Your task to perform on an android device: clear all cookies in the chrome app Image 0: 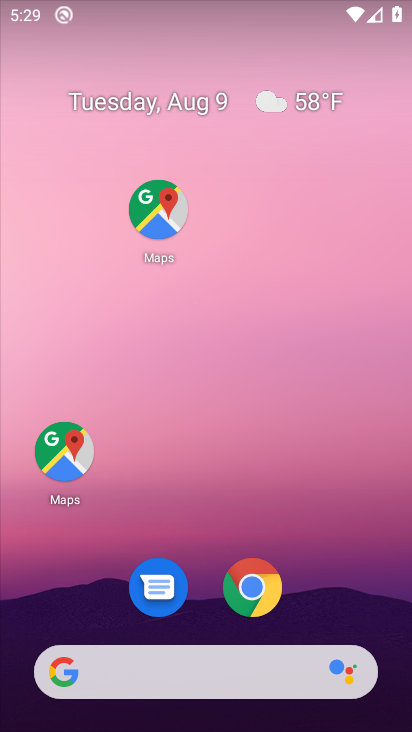
Step 0: click (174, 246)
Your task to perform on an android device: clear all cookies in the chrome app Image 1: 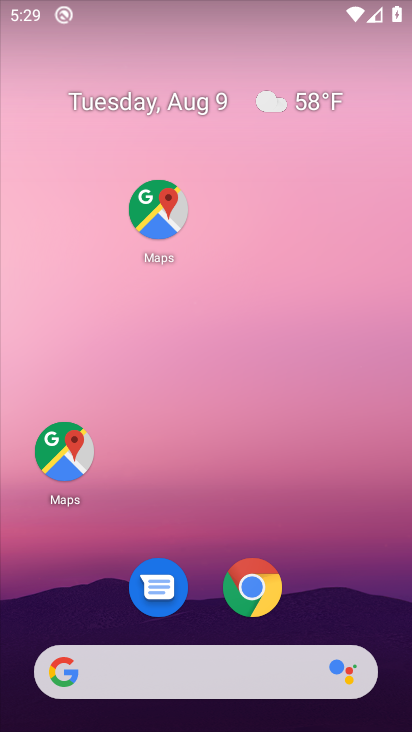
Step 1: click (216, 494)
Your task to perform on an android device: clear all cookies in the chrome app Image 2: 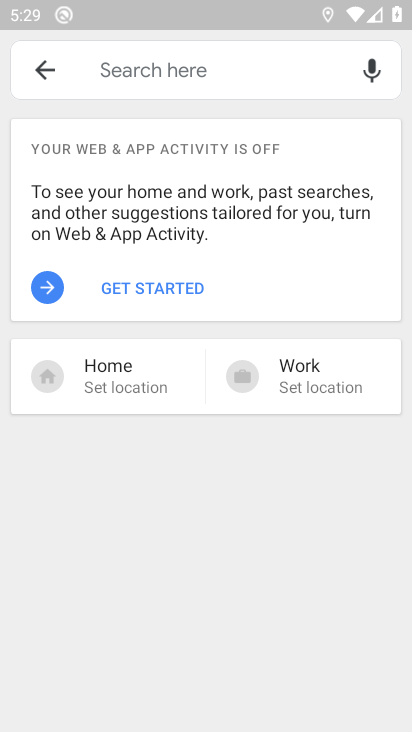
Step 2: click (35, 68)
Your task to perform on an android device: clear all cookies in the chrome app Image 3: 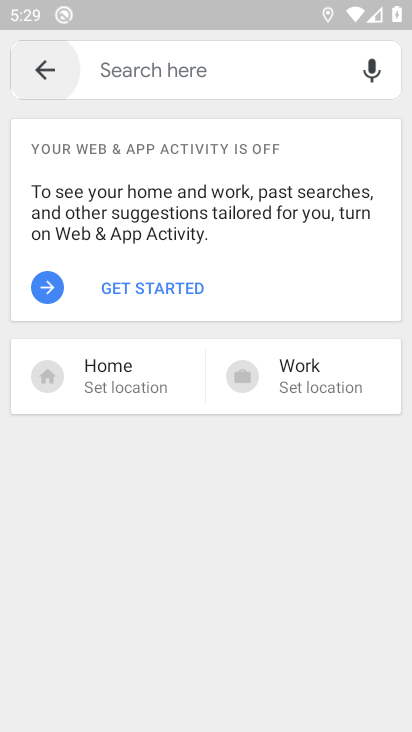
Step 3: click (34, 68)
Your task to perform on an android device: clear all cookies in the chrome app Image 4: 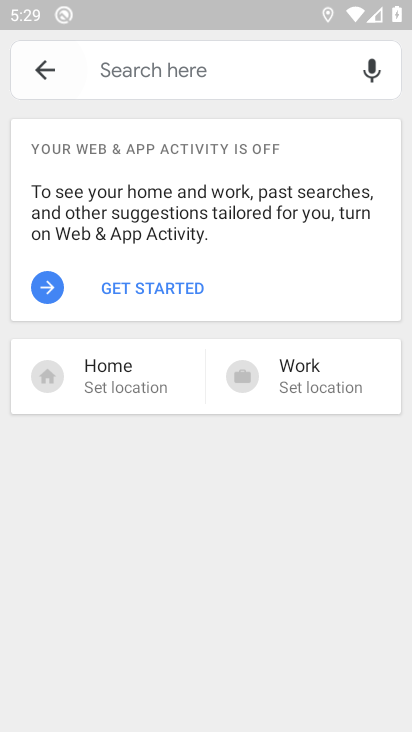
Step 4: click (34, 68)
Your task to perform on an android device: clear all cookies in the chrome app Image 5: 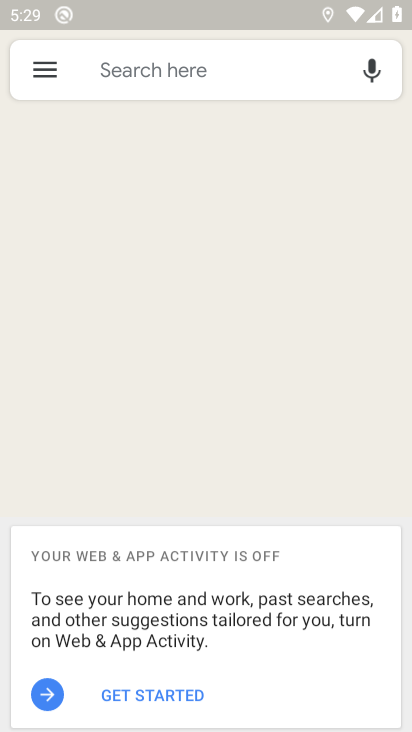
Step 5: click (34, 70)
Your task to perform on an android device: clear all cookies in the chrome app Image 6: 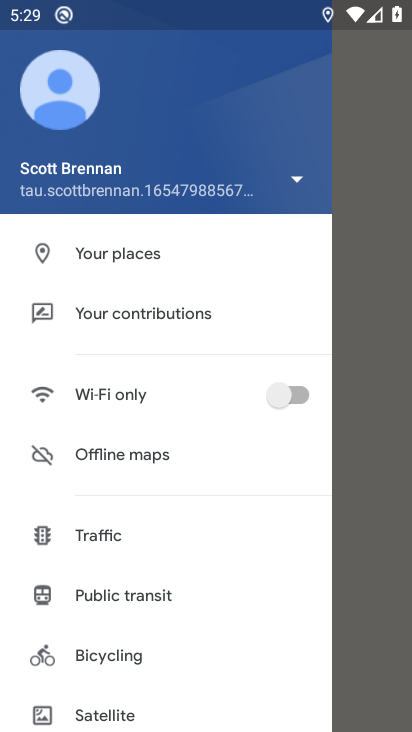
Step 6: click (388, 336)
Your task to perform on an android device: clear all cookies in the chrome app Image 7: 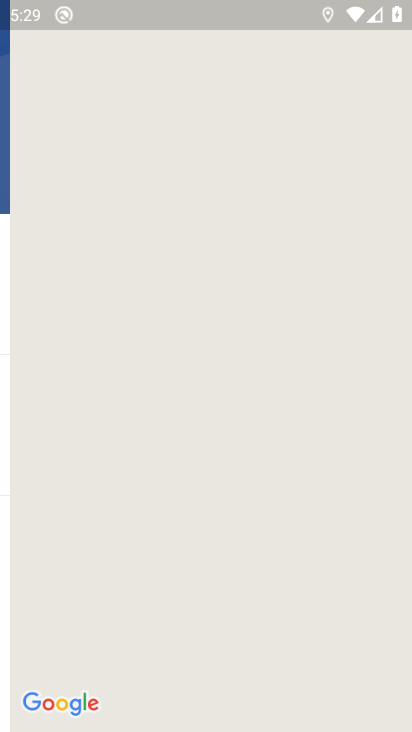
Step 7: press back button
Your task to perform on an android device: clear all cookies in the chrome app Image 8: 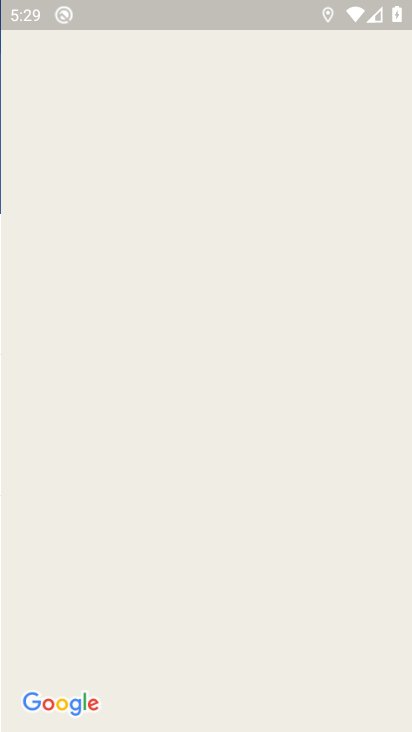
Step 8: press home button
Your task to perform on an android device: clear all cookies in the chrome app Image 9: 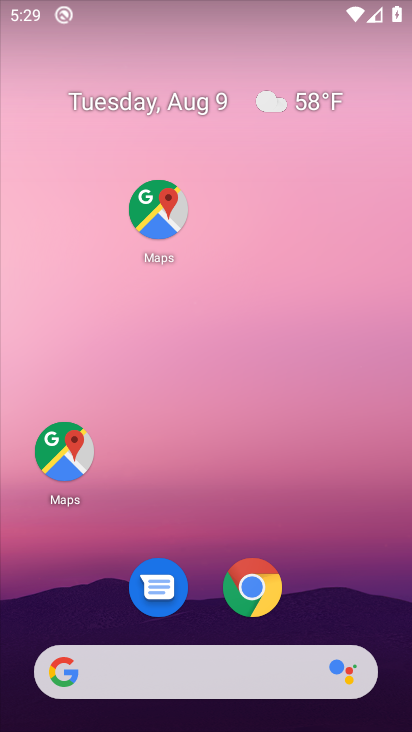
Step 9: click (261, 586)
Your task to perform on an android device: clear all cookies in the chrome app Image 10: 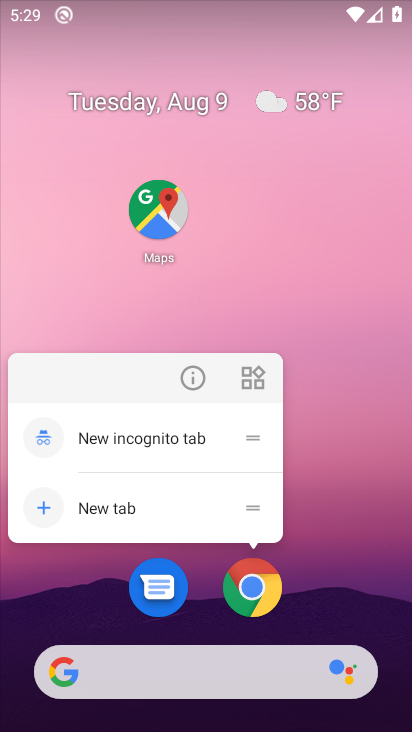
Step 10: click (260, 587)
Your task to perform on an android device: clear all cookies in the chrome app Image 11: 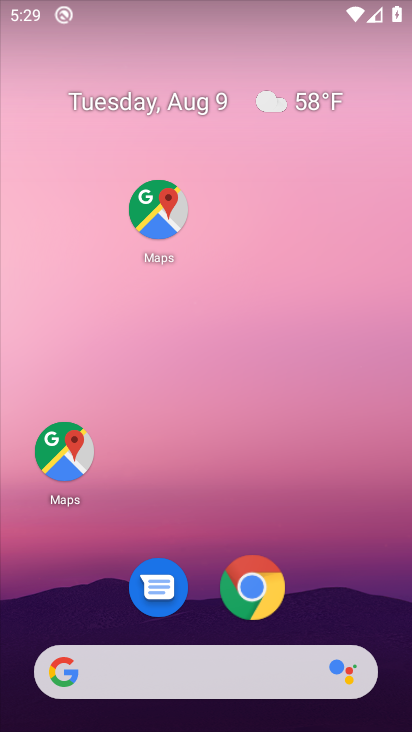
Step 11: click (260, 587)
Your task to perform on an android device: clear all cookies in the chrome app Image 12: 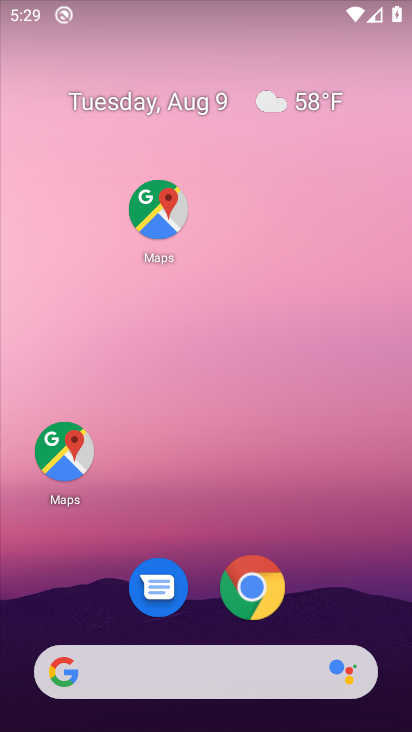
Step 12: click (260, 587)
Your task to perform on an android device: clear all cookies in the chrome app Image 13: 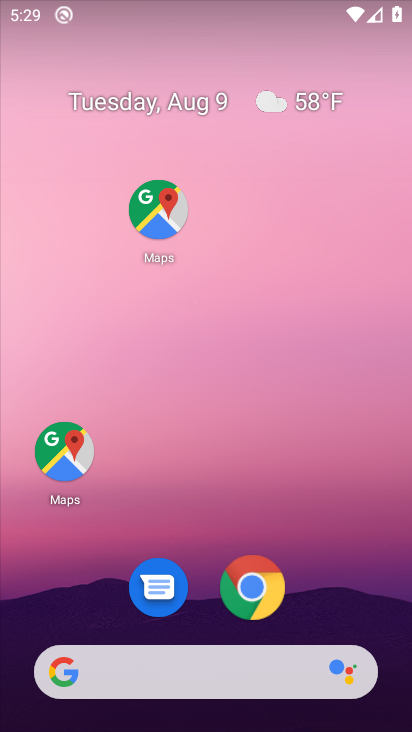
Step 13: click (260, 587)
Your task to perform on an android device: clear all cookies in the chrome app Image 14: 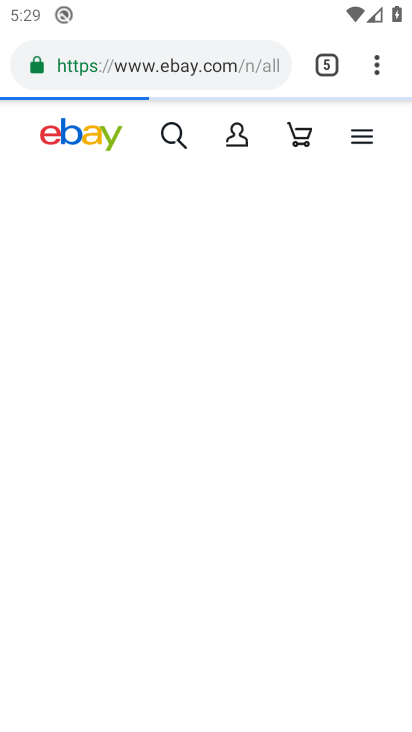
Step 14: drag from (374, 66) to (122, 637)
Your task to perform on an android device: clear all cookies in the chrome app Image 15: 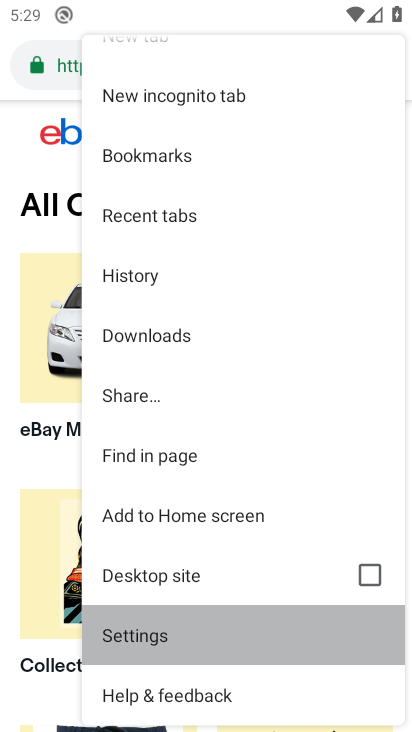
Step 15: click (128, 638)
Your task to perform on an android device: clear all cookies in the chrome app Image 16: 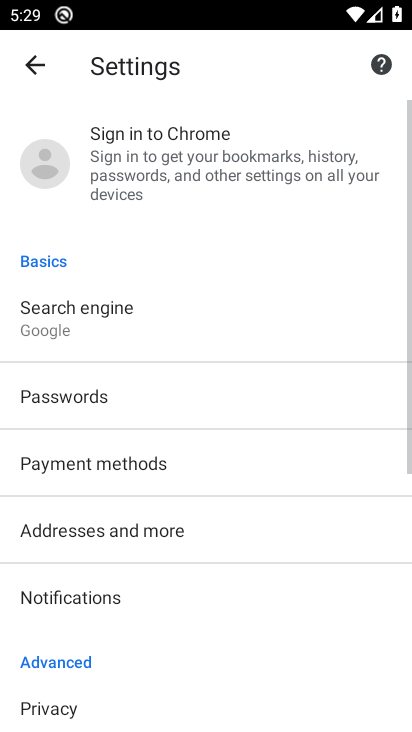
Step 16: drag from (91, 528) to (90, 43)
Your task to perform on an android device: clear all cookies in the chrome app Image 17: 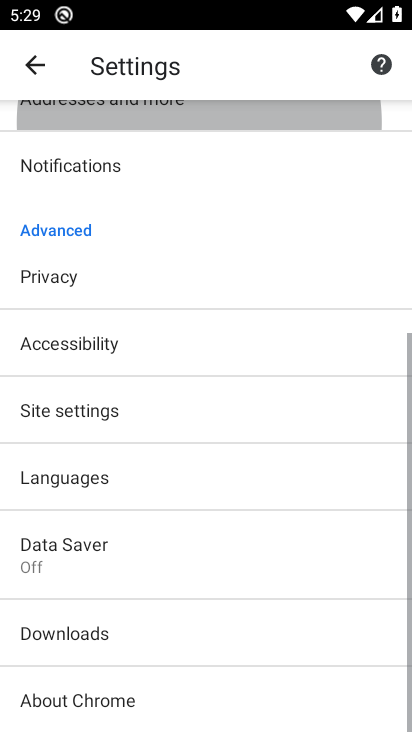
Step 17: drag from (129, 444) to (144, 197)
Your task to perform on an android device: clear all cookies in the chrome app Image 18: 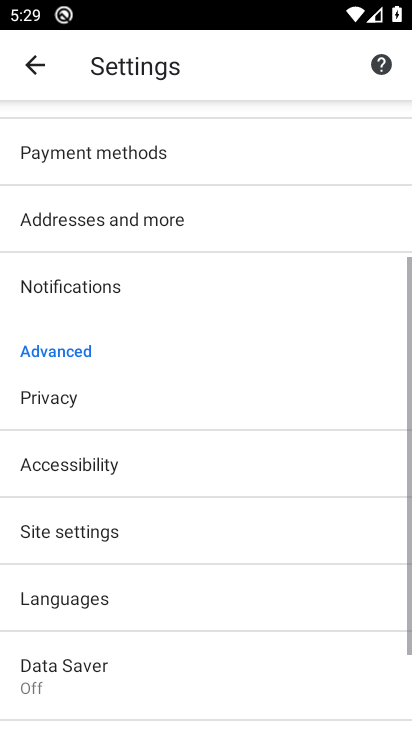
Step 18: click (51, 534)
Your task to perform on an android device: clear all cookies in the chrome app Image 19: 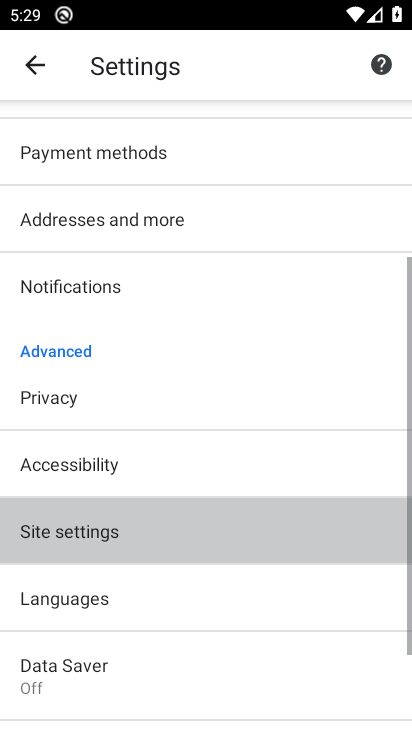
Step 19: click (49, 532)
Your task to perform on an android device: clear all cookies in the chrome app Image 20: 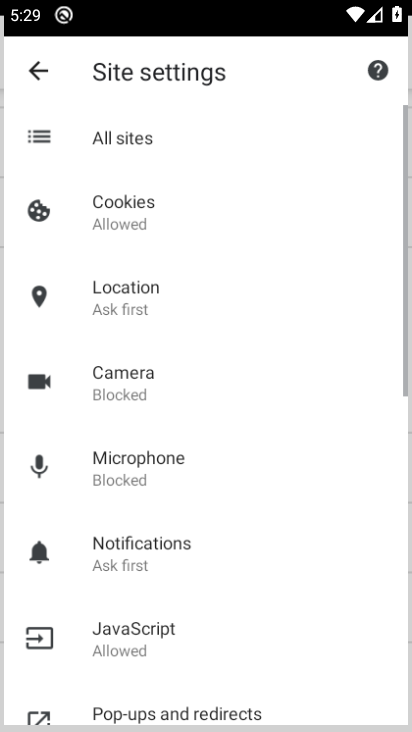
Step 20: click (49, 532)
Your task to perform on an android device: clear all cookies in the chrome app Image 21: 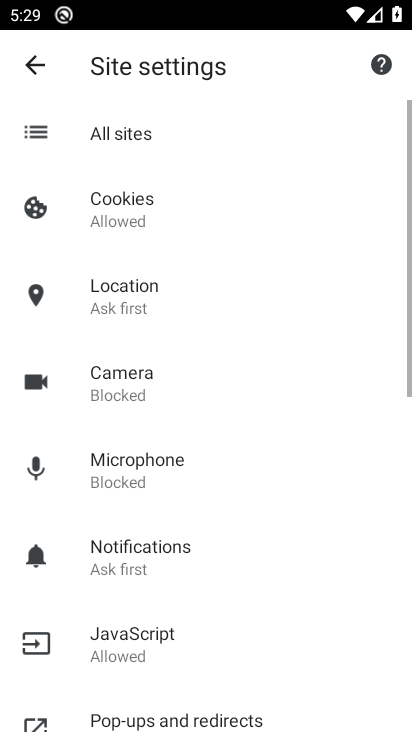
Step 21: click (50, 532)
Your task to perform on an android device: clear all cookies in the chrome app Image 22: 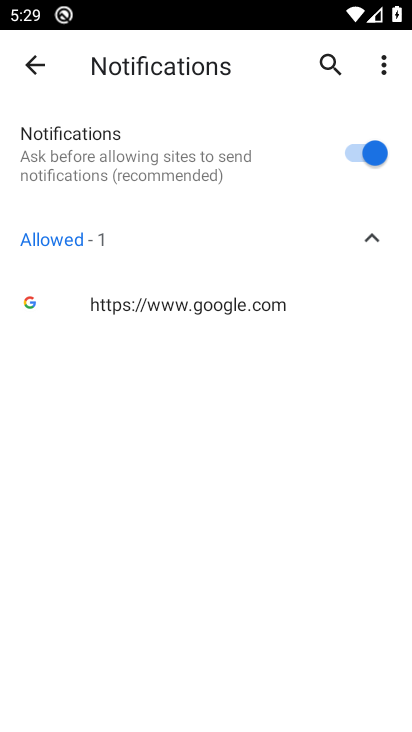
Step 22: click (36, 60)
Your task to perform on an android device: clear all cookies in the chrome app Image 23: 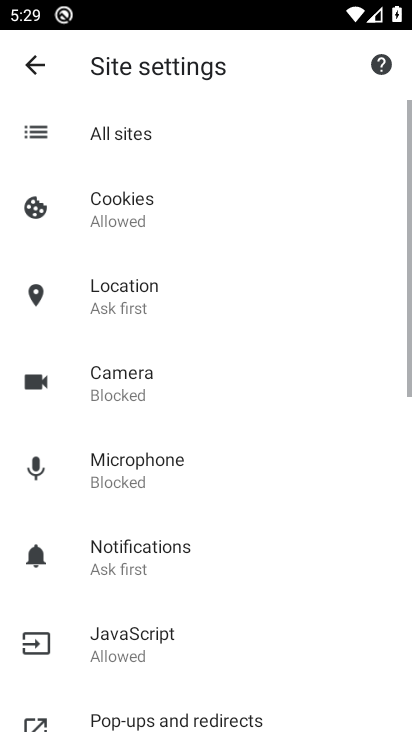
Step 23: click (114, 209)
Your task to perform on an android device: clear all cookies in the chrome app Image 24: 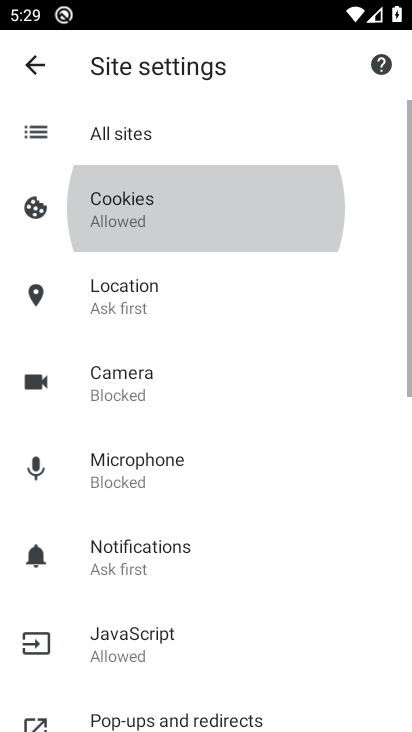
Step 24: click (108, 206)
Your task to perform on an android device: clear all cookies in the chrome app Image 25: 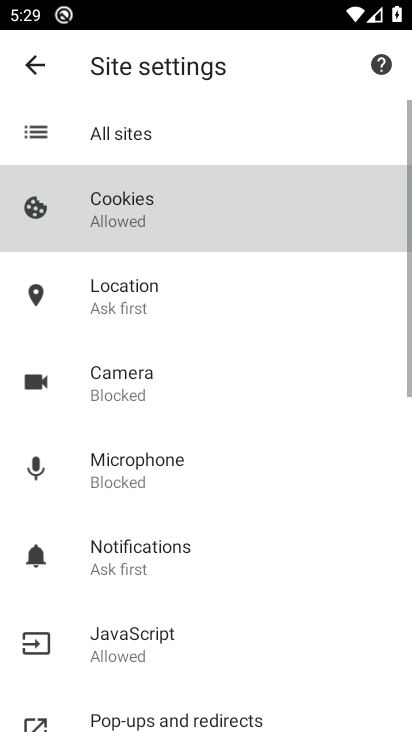
Step 25: click (103, 210)
Your task to perform on an android device: clear all cookies in the chrome app Image 26: 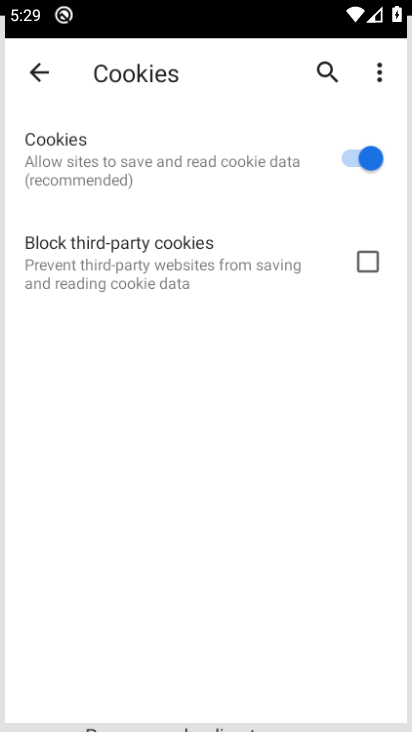
Step 26: click (105, 211)
Your task to perform on an android device: clear all cookies in the chrome app Image 27: 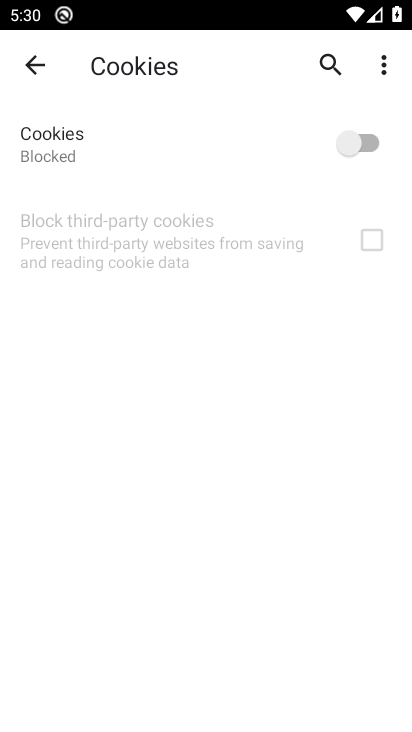
Step 27: click (364, 140)
Your task to perform on an android device: clear all cookies in the chrome app Image 28: 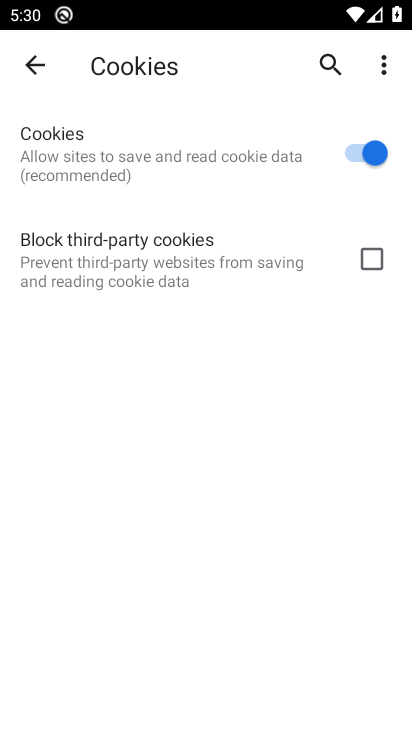
Step 28: task complete